Your task to perform on an android device: change the clock style Image 0: 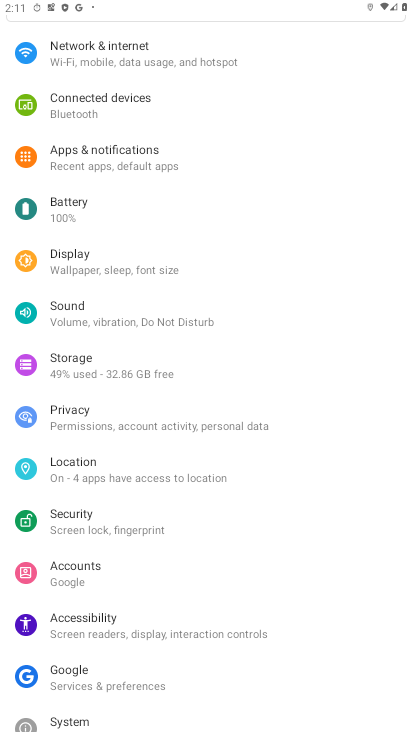
Step 0: press home button
Your task to perform on an android device: change the clock style Image 1: 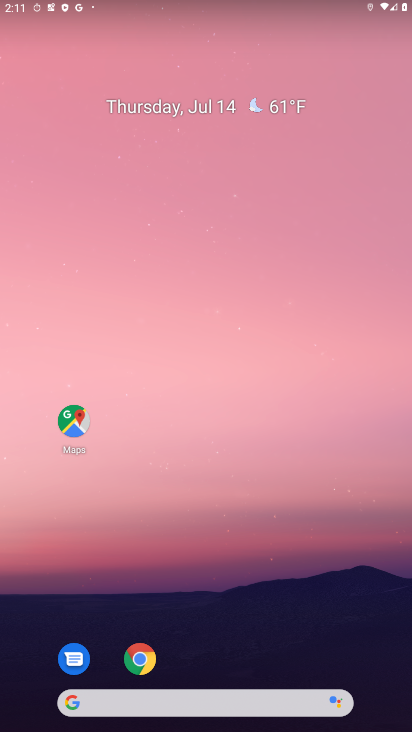
Step 1: drag from (235, 591) to (235, 7)
Your task to perform on an android device: change the clock style Image 2: 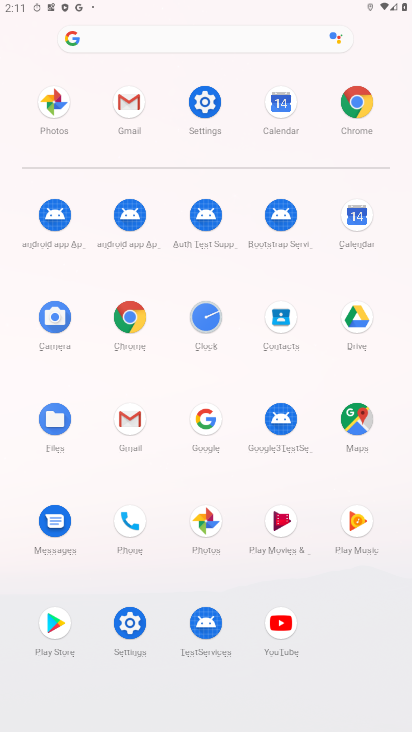
Step 2: click (202, 331)
Your task to perform on an android device: change the clock style Image 3: 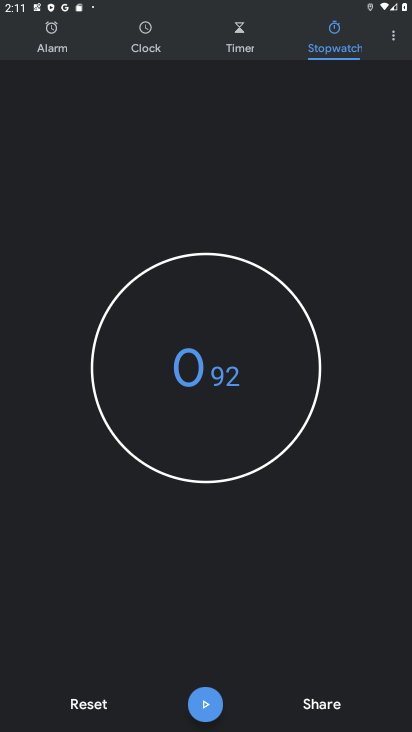
Step 3: click (390, 37)
Your task to perform on an android device: change the clock style Image 4: 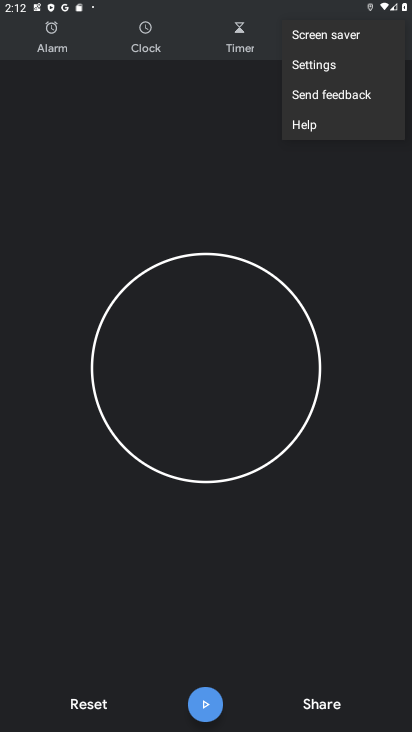
Step 4: click (321, 62)
Your task to perform on an android device: change the clock style Image 5: 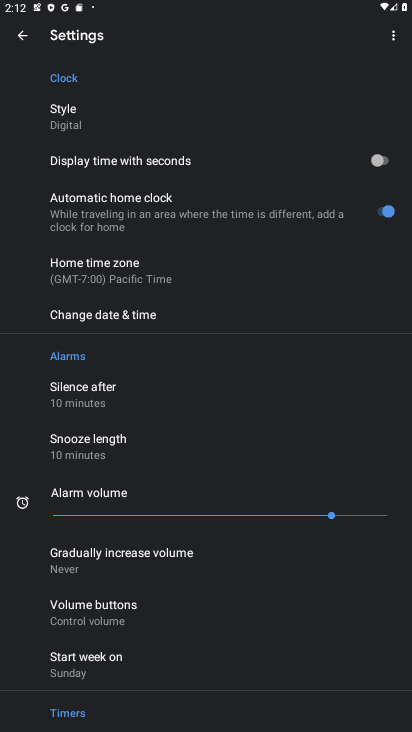
Step 5: click (80, 122)
Your task to perform on an android device: change the clock style Image 6: 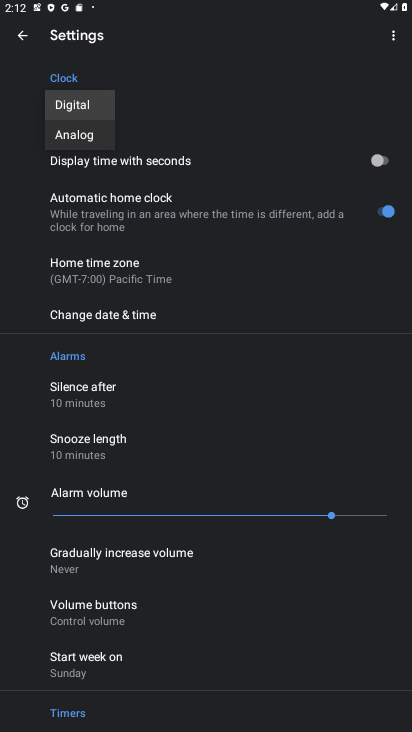
Step 6: click (90, 130)
Your task to perform on an android device: change the clock style Image 7: 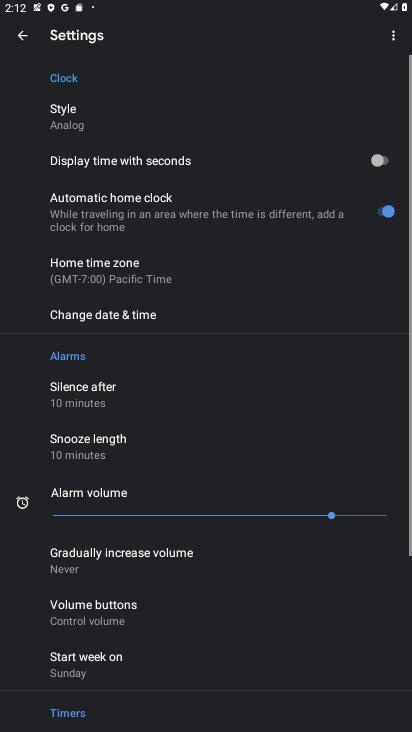
Step 7: task complete